Your task to perform on an android device: Open location settings Image 0: 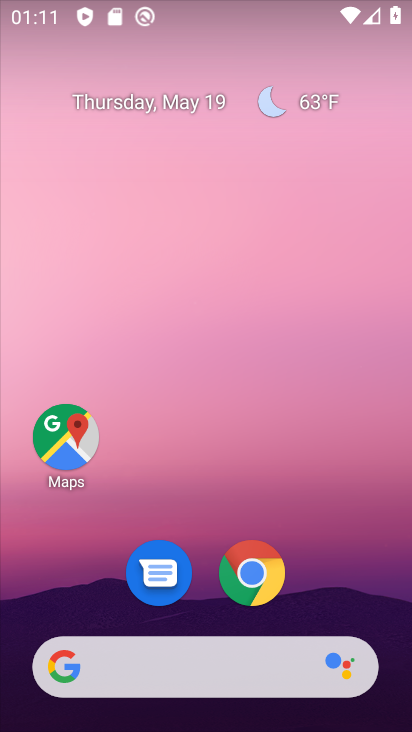
Step 0: drag from (329, 604) to (331, 122)
Your task to perform on an android device: Open location settings Image 1: 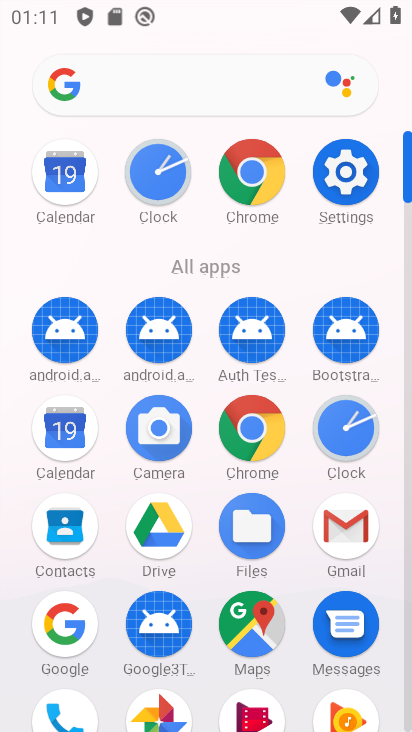
Step 1: click (345, 163)
Your task to perform on an android device: Open location settings Image 2: 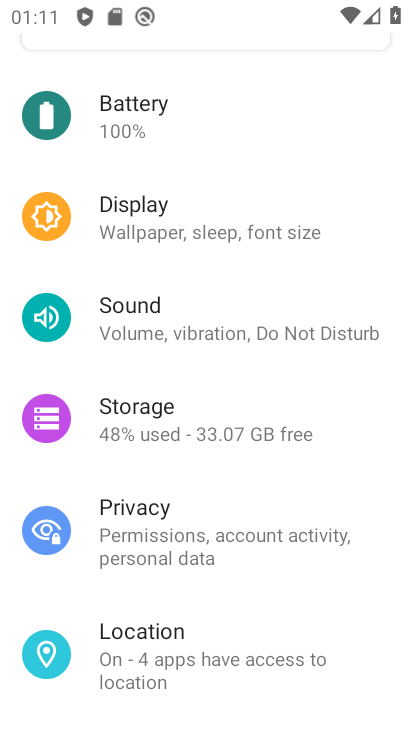
Step 2: click (242, 635)
Your task to perform on an android device: Open location settings Image 3: 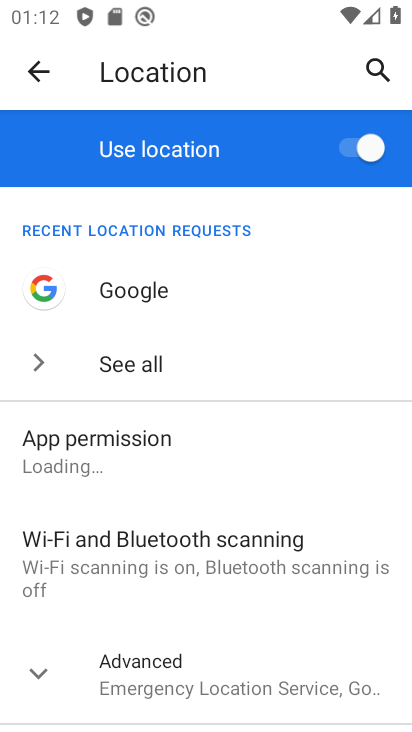
Step 3: task complete